Your task to perform on an android device: check the backup settings in the google photos Image 0: 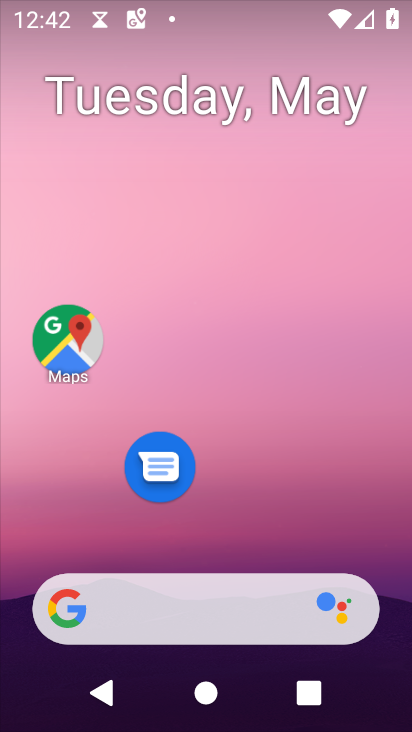
Step 0: drag from (254, 537) to (249, 53)
Your task to perform on an android device: check the backup settings in the google photos Image 1: 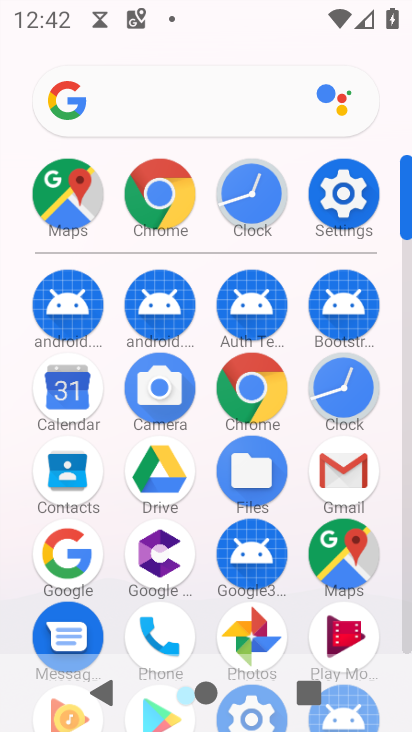
Step 1: click (255, 614)
Your task to perform on an android device: check the backup settings in the google photos Image 2: 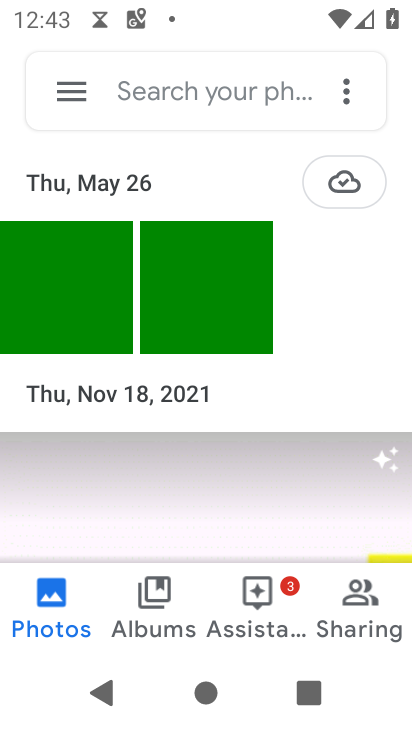
Step 2: click (73, 91)
Your task to perform on an android device: check the backup settings in the google photos Image 3: 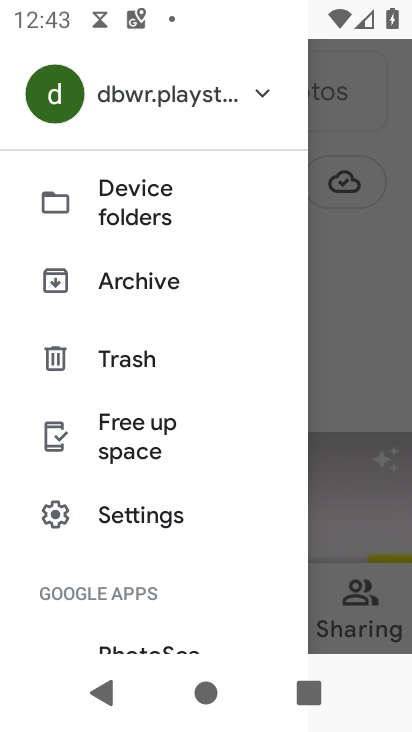
Step 3: click (162, 517)
Your task to perform on an android device: check the backup settings in the google photos Image 4: 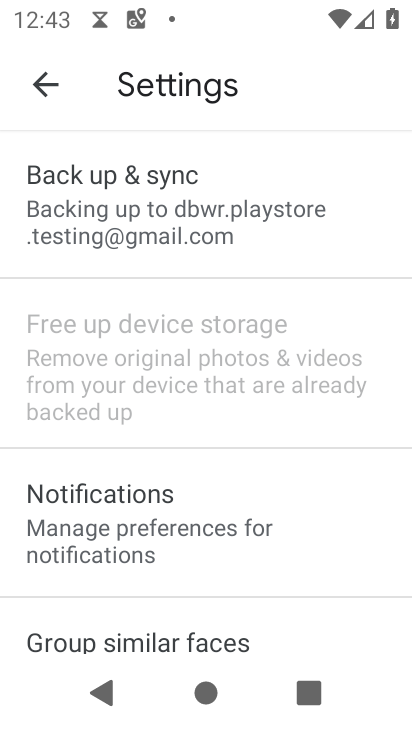
Step 4: click (163, 225)
Your task to perform on an android device: check the backup settings in the google photos Image 5: 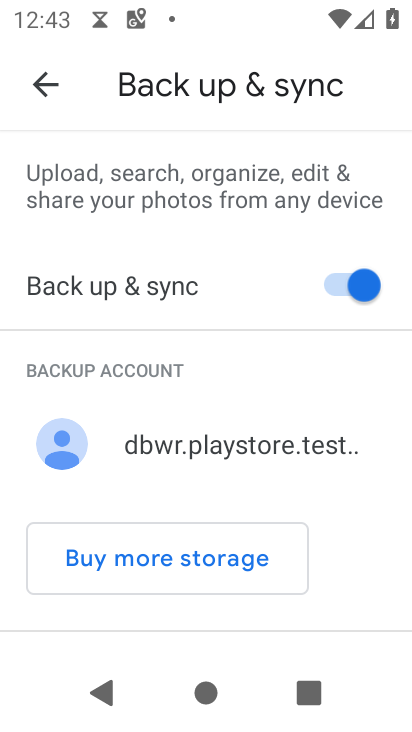
Step 5: task complete